Your task to perform on an android device: allow cookies in the chrome app Image 0: 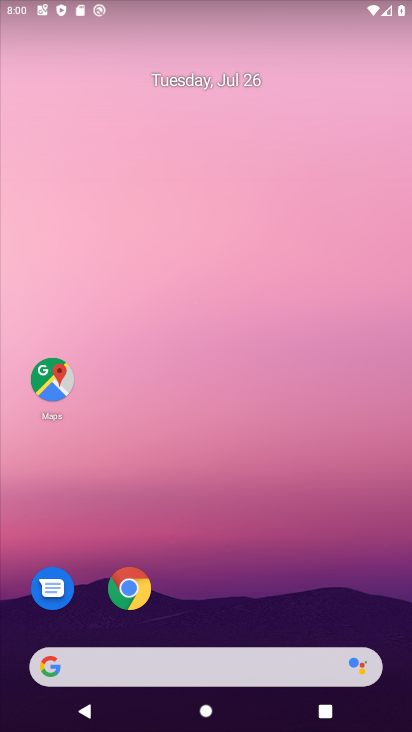
Step 0: click (130, 591)
Your task to perform on an android device: allow cookies in the chrome app Image 1: 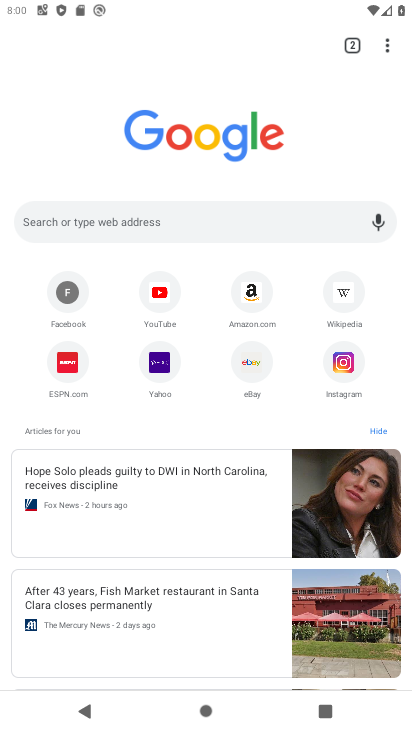
Step 1: click (385, 50)
Your task to perform on an android device: allow cookies in the chrome app Image 2: 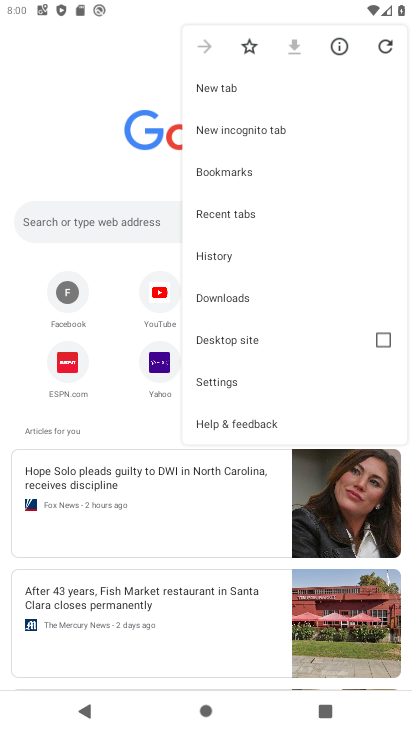
Step 2: click (226, 387)
Your task to perform on an android device: allow cookies in the chrome app Image 3: 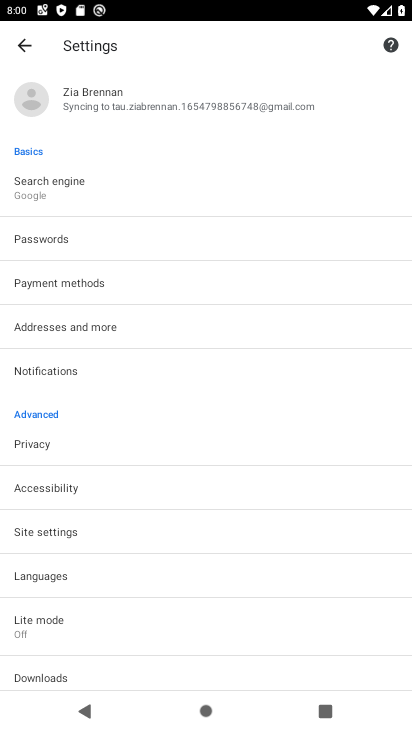
Step 3: click (54, 533)
Your task to perform on an android device: allow cookies in the chrome app Image 4: 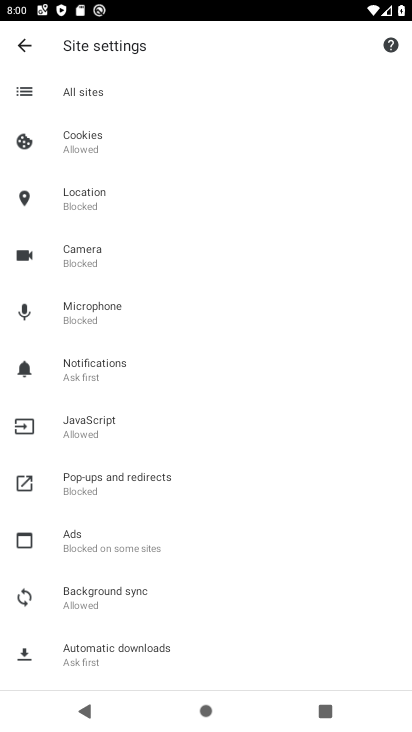
Step 4: click (88, 148)
Your task to perform on an android device: allow cookies in the chrome app Image 5: 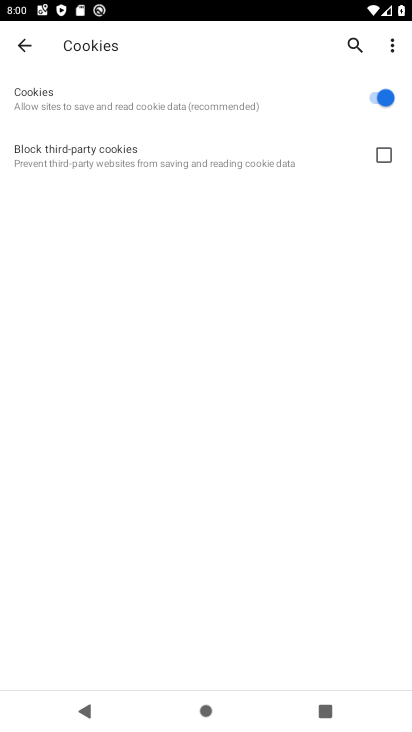
Step 5: task complete